Your task to perform on an android device: Add dell xps to the cart on amazon.com Image 0: 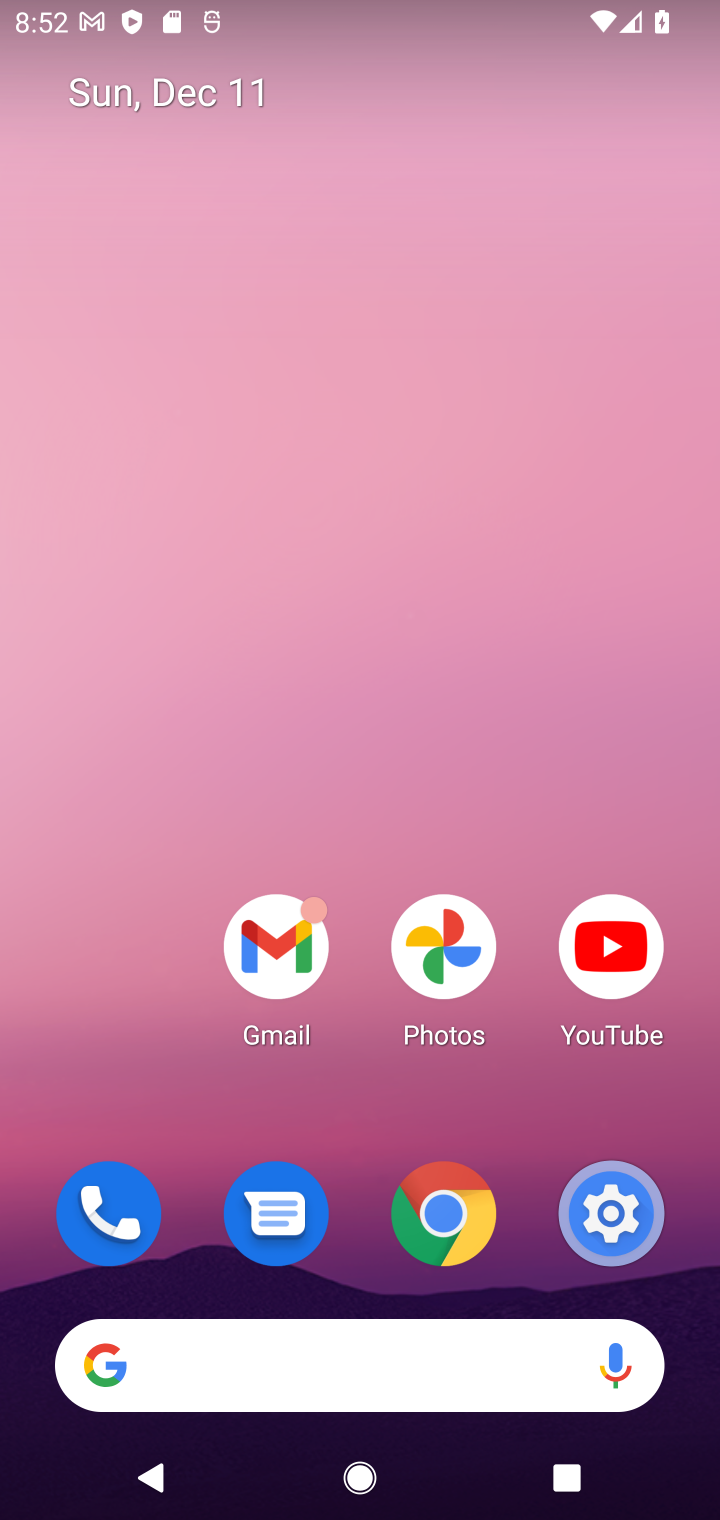
Step 0: click (389, 1379)
Your task to perform on an android device: Add dell xps to the cart on amazon.com Image 1: 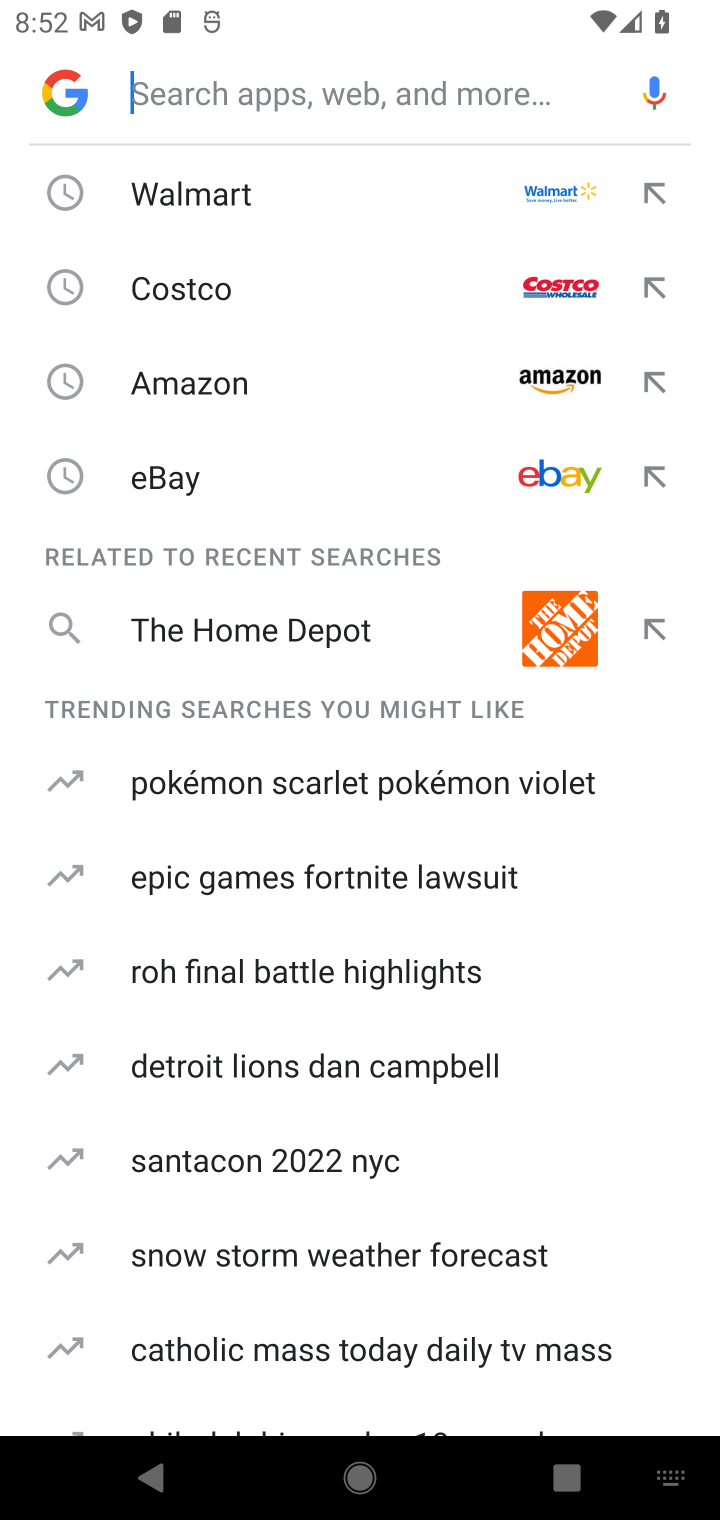
Step 1: type "amazon"
Your task to perform on an android device: Add dell xps to the cart on amazon.com Image 2: 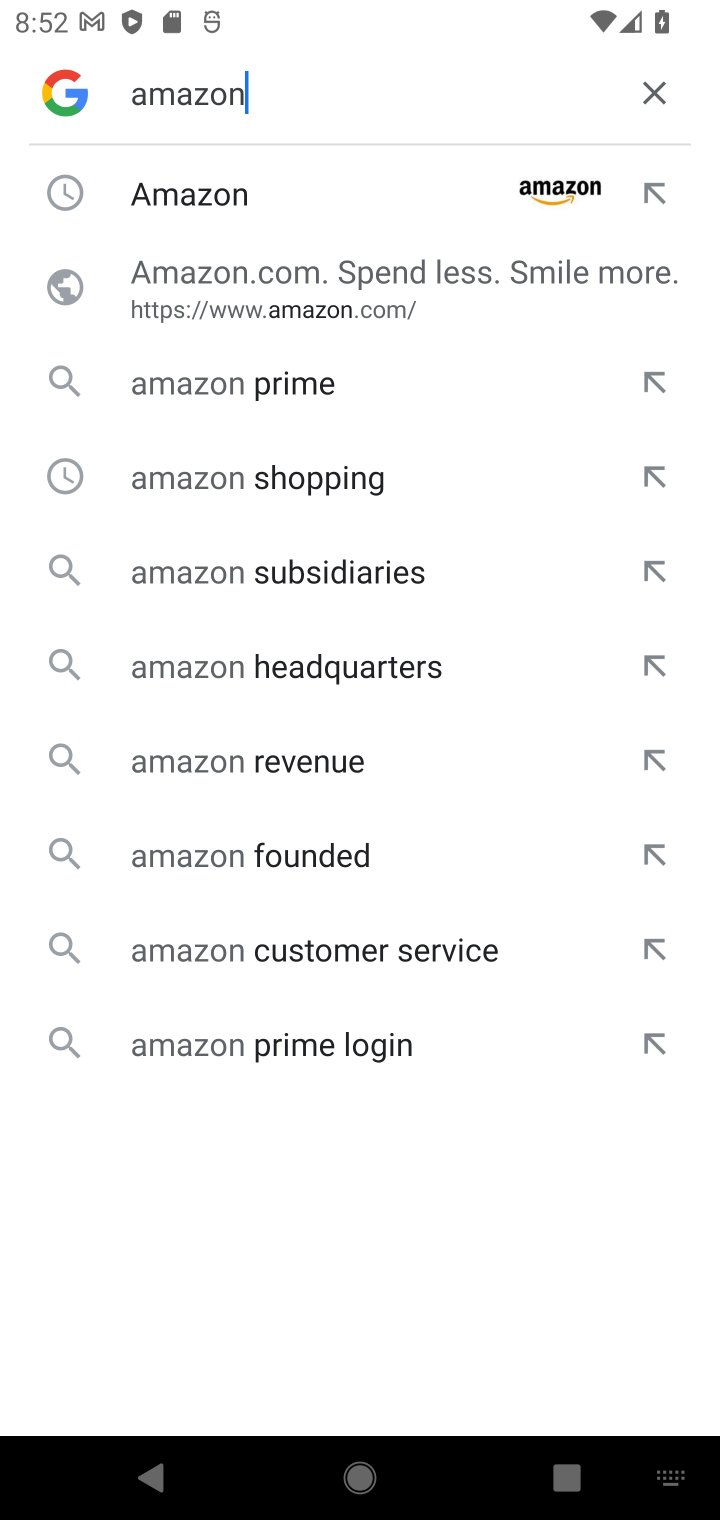
Step 2: click (377, 189)
Your task to perform on an android device: Add dell xps to the cart on amazon.com Image 3: 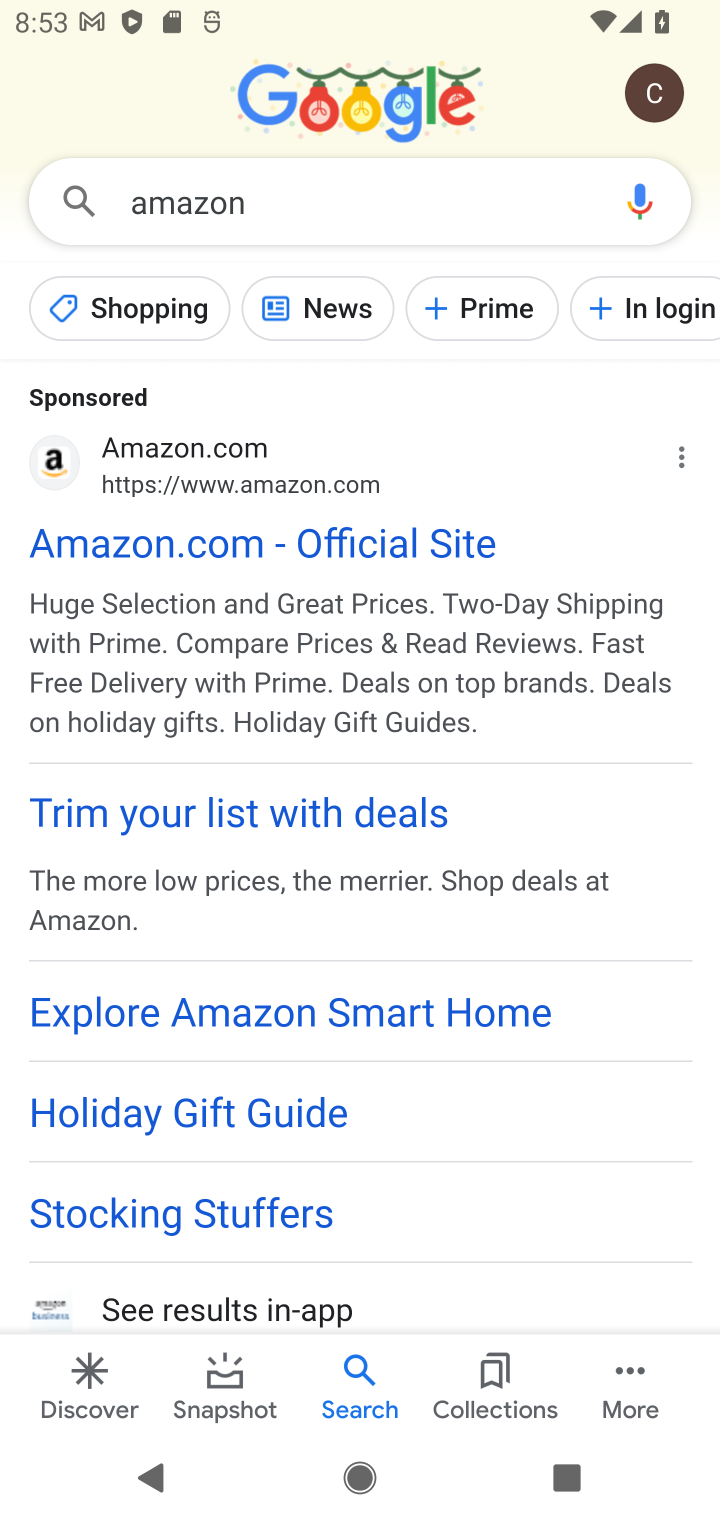
Step 3: click (331, 561)
Your task to perform on an android device: Add dell xps to the cart on amazon.com Image 4: 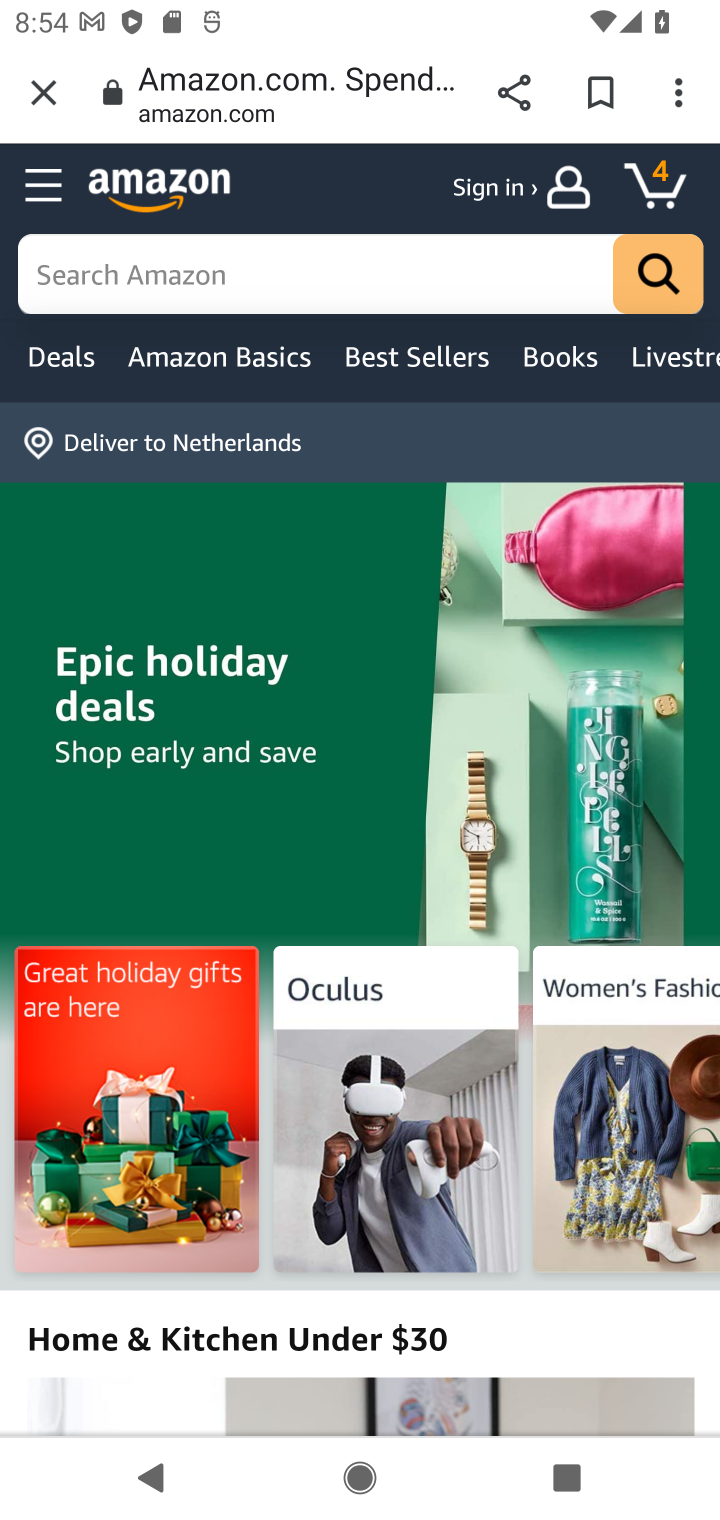
Step 4: click (334, 316)
Your task to perform on an android device: Add dell xps to the cart on amazon.com Image 5: 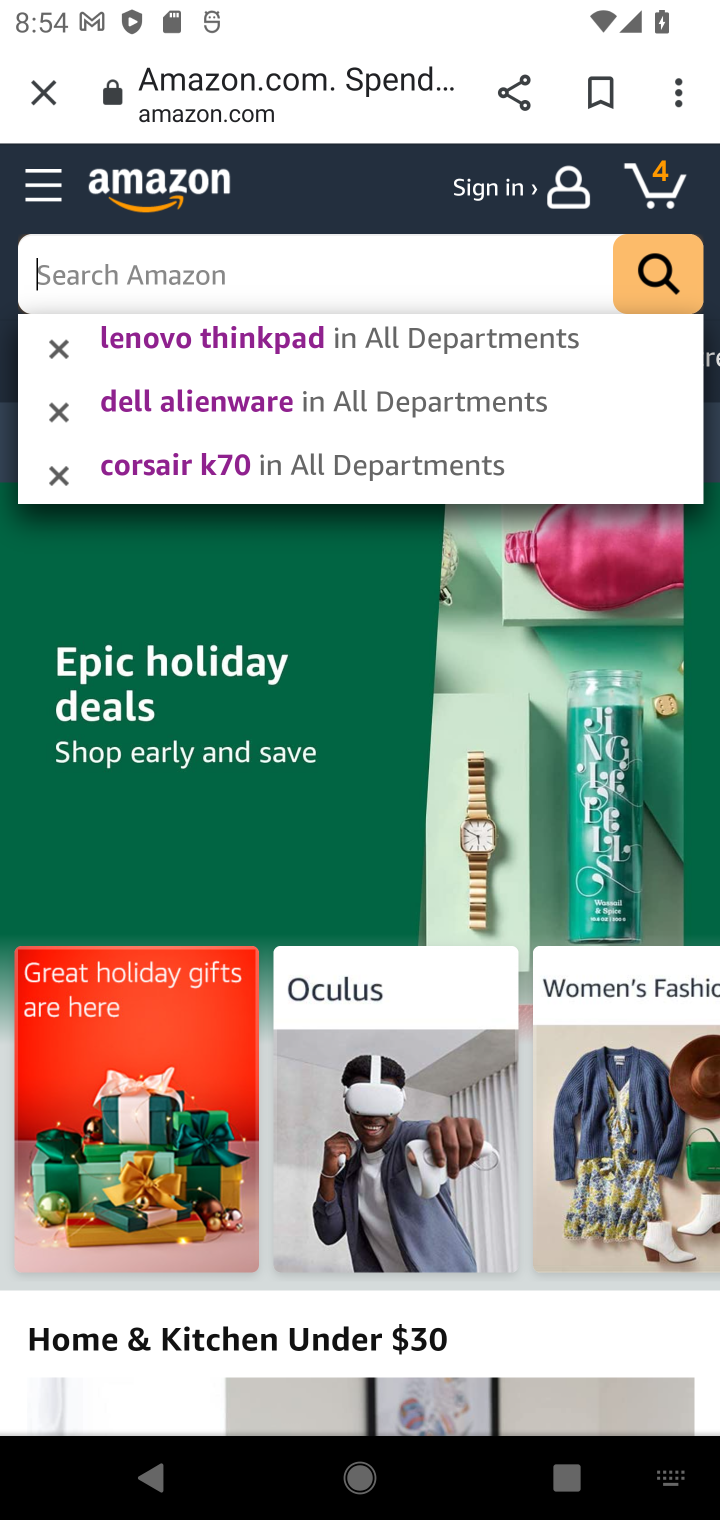
Step 5: type "dell xps"
Your task to perform on an android device: Add dell xps to the cart on amazon.com Image 6: 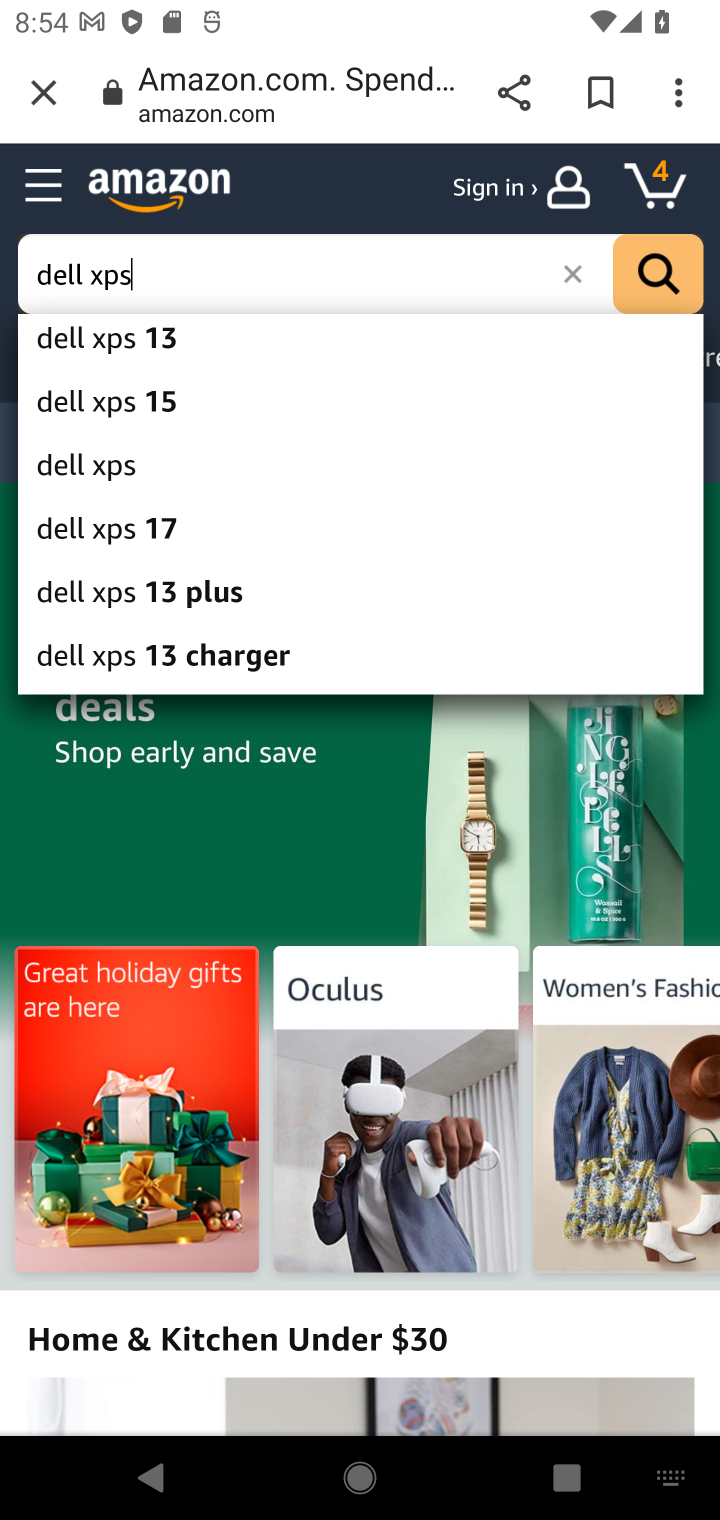
Step 6: click (167, 443)
Your task to perform on an android device: Add dell xps to the cart on amazon.com Image 7: 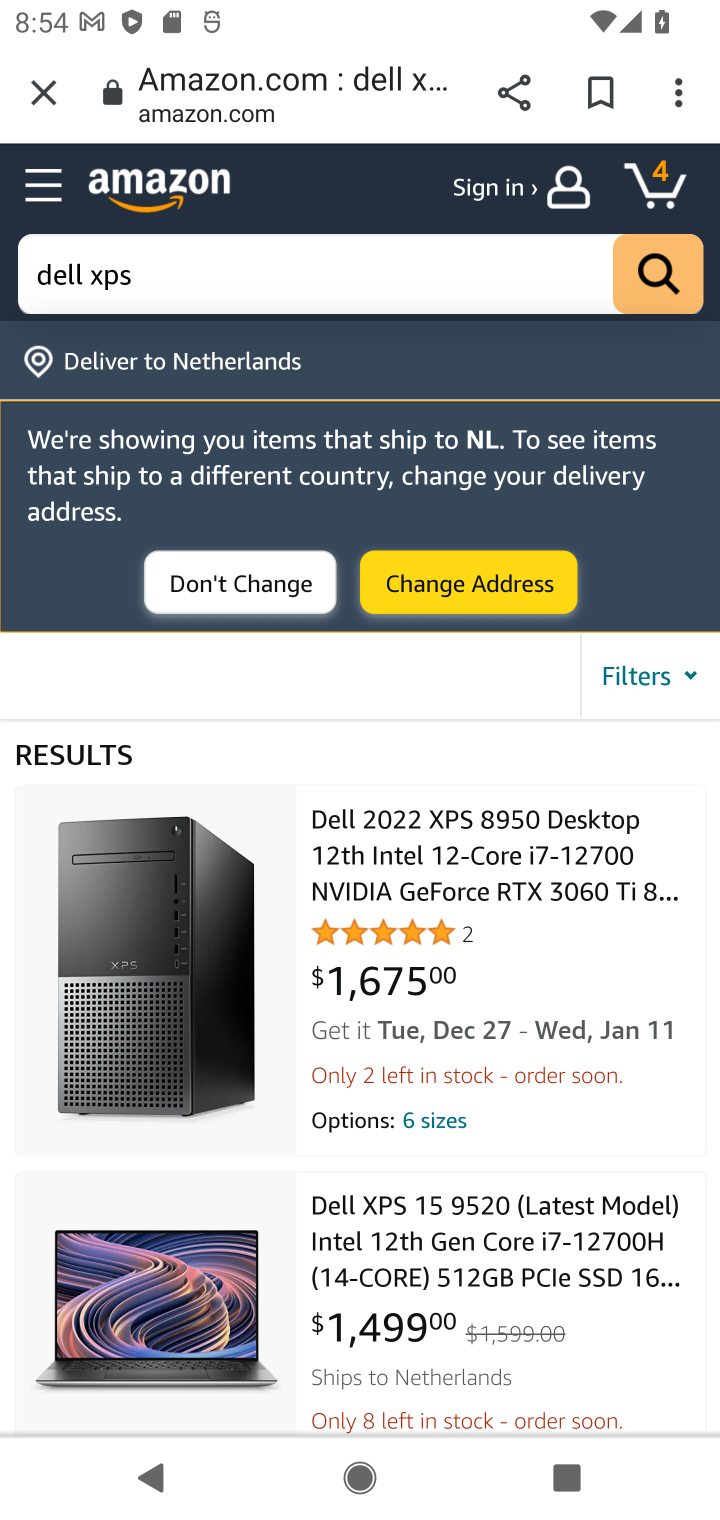
Step 7: drag from (319, 1137) to (456, 731)
Your task to perform on an android device: Add dell xps to the cart on amazon.com Image 8: 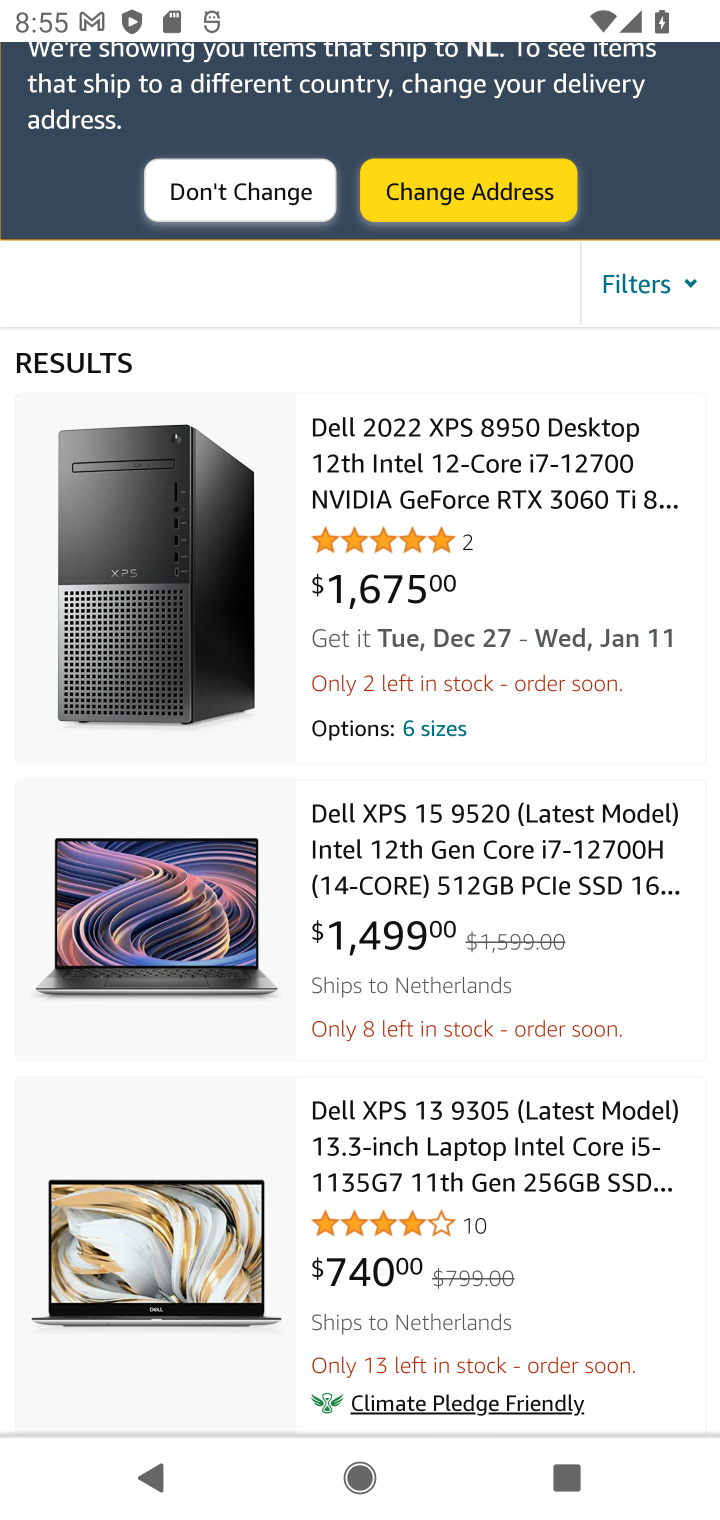
Step 8: click (490, 456)
Your task to perform on an android device: Add dell xps to the cart on amazon.com Image 9: 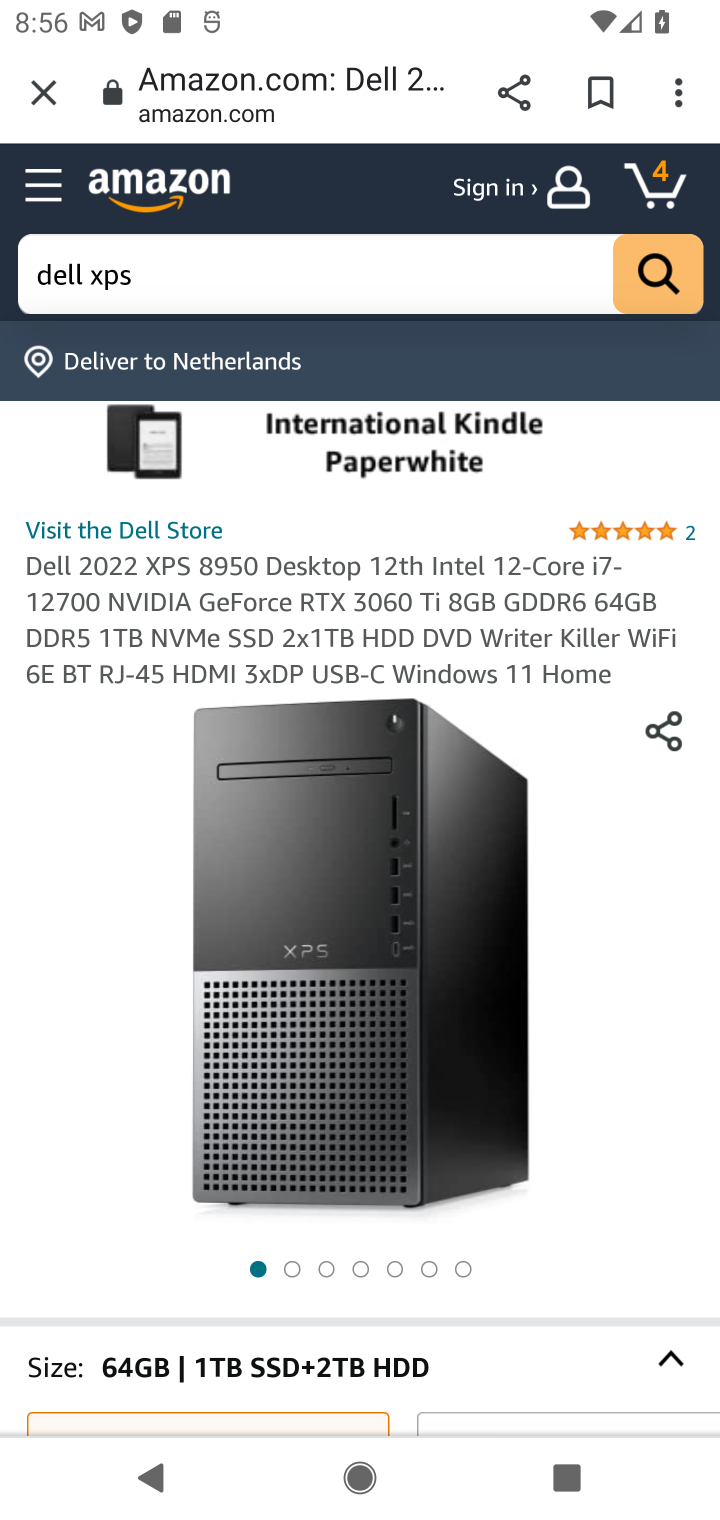
Step 9: task complete